Your task to perform on an android device: clear history in the chrome app Image 0: 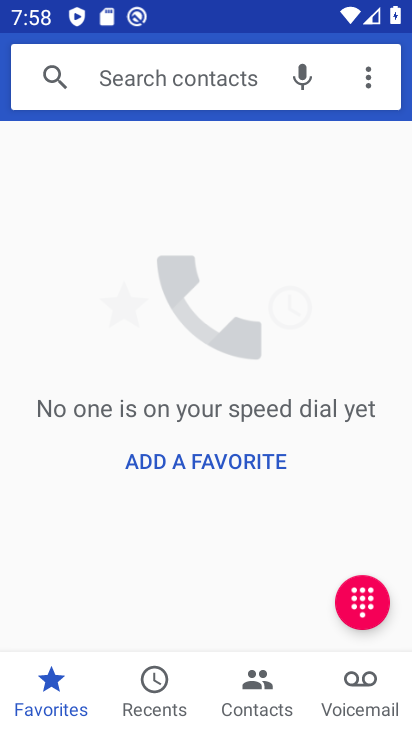
Step 0: press home button
Your task to perform on an android device: clear history in the chrome app Image 1: 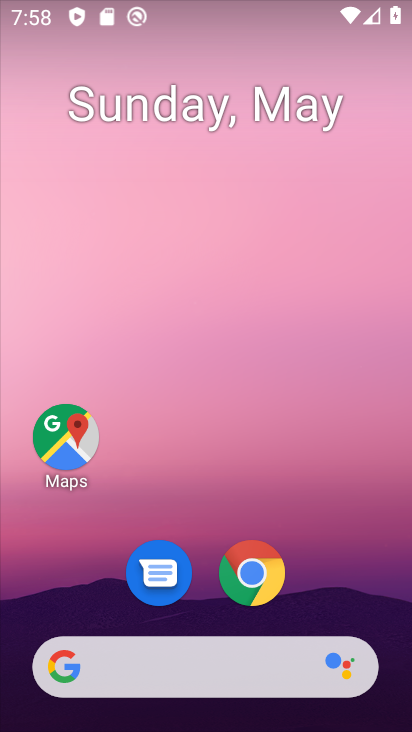
Step 1: click (265, 559)
Your task to perform on an android device: clear history in the chrome app Image 2: 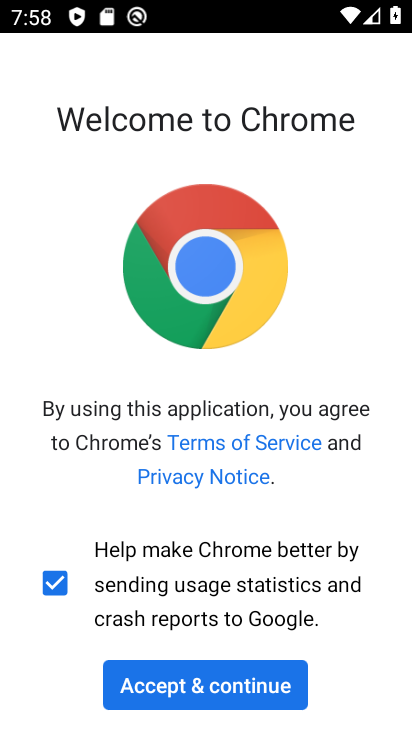
Step 2: click (187, 680)
Your task to perform on an android device: clear history in the chrome app Image 3: 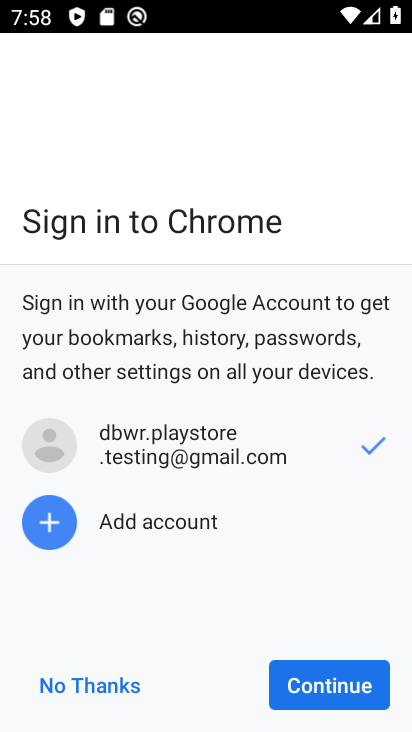
Step 3: click (313, 684)
Your task to perform on an android device: clear history in the chrome app Image 4: 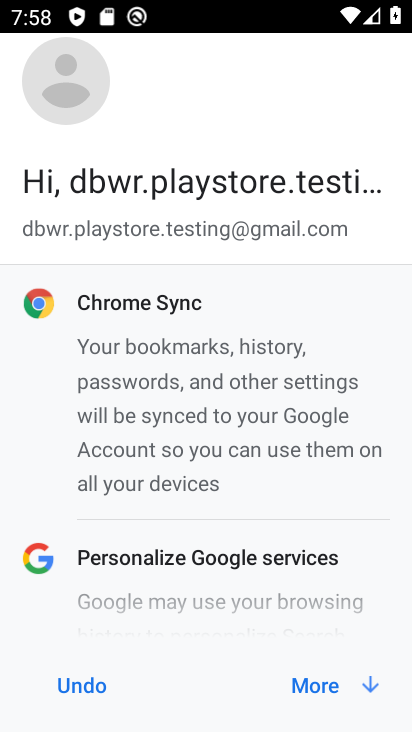
Step 4: click (313, 684)
Your task to perform on an android device: clear history in the chrome app Image 5: 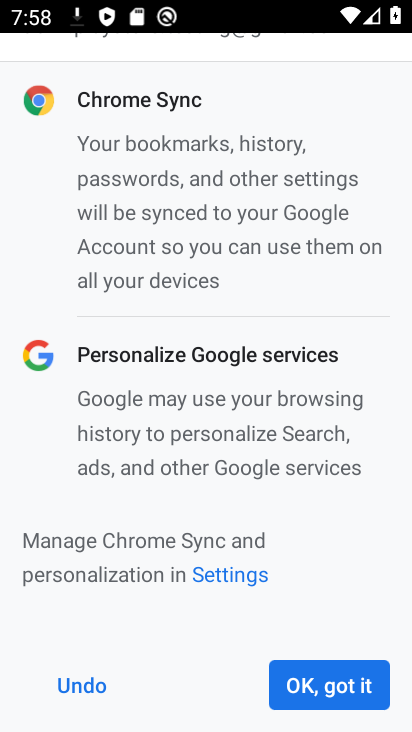
Step 5: click (313, 684)
Your task to perform on an android device: clear history in the chrome app Image 6: 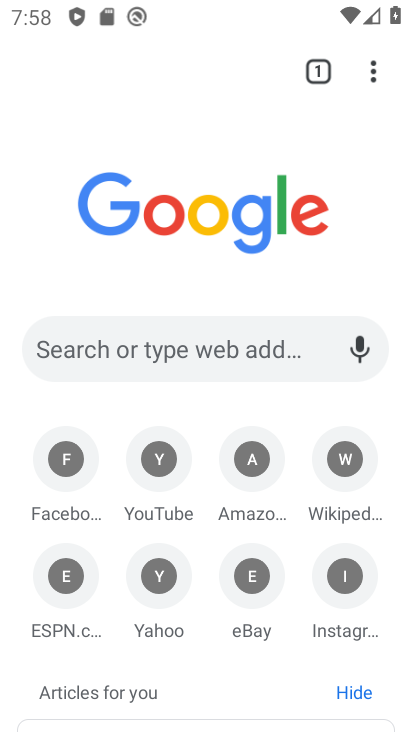
Step 6: click (375, 69)
Your task to perform on an android device: clear history in the chrome app Image 7: 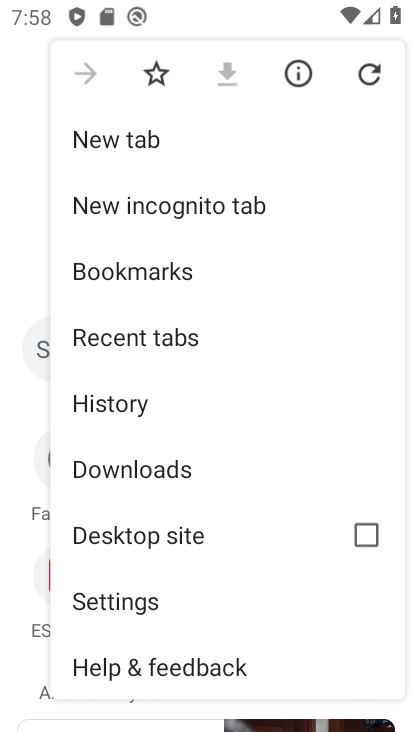
Step 7: click (159, 409)
Your task to perform on an android device: clear history in the chrome app Image 8: 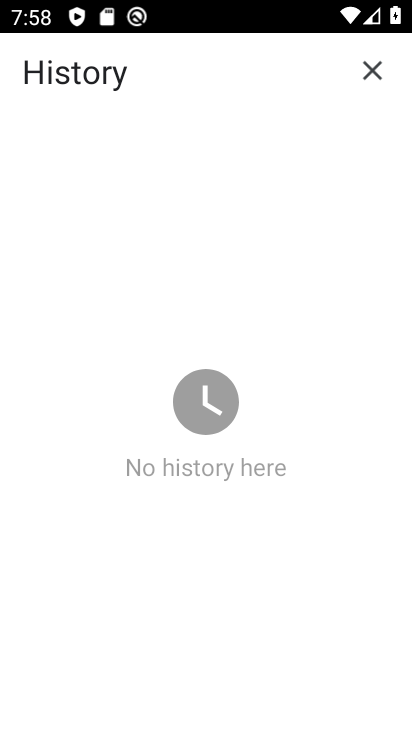
Step 8: task complete